Your task to perform on an android device: Open Google Maps Image 0: 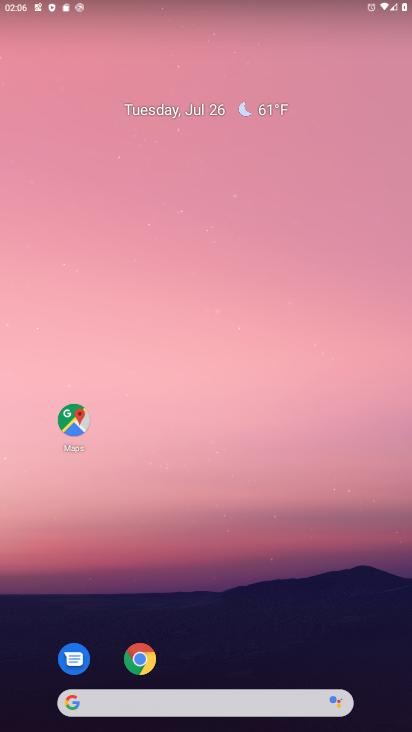
Step 0: drag from (278, 629) to (246, 156)
Your task to perform on an android device: Open Google Maps Image 1: 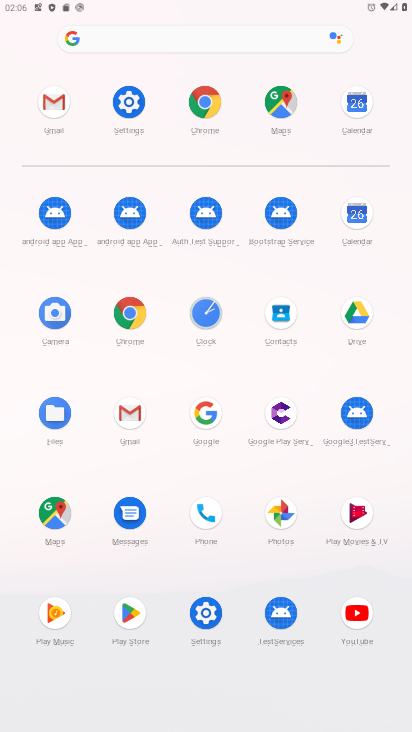
Step 1: click (280, 108)
Your task to perform on an android device: Open Google Maps Image 2: 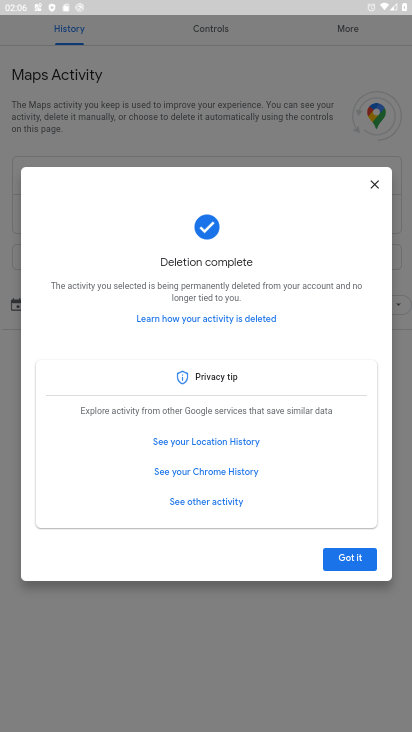
Step 2: click (344, 554)
Your task to perform on an android device: Open Google Maps Image 3: 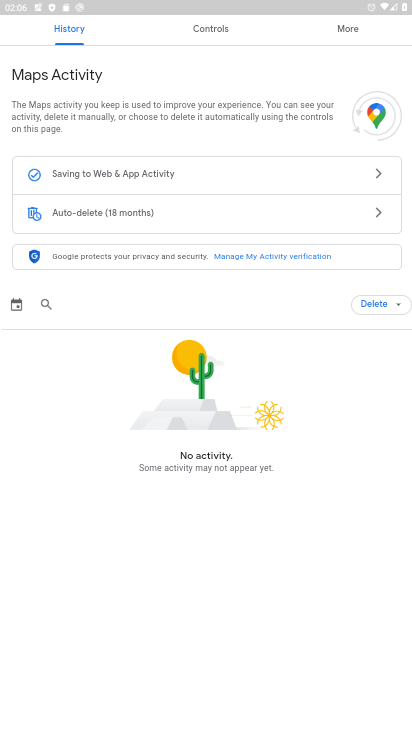
Step 3: task complete